Your task to perform on an android device: Open Reddit.com Image 0: 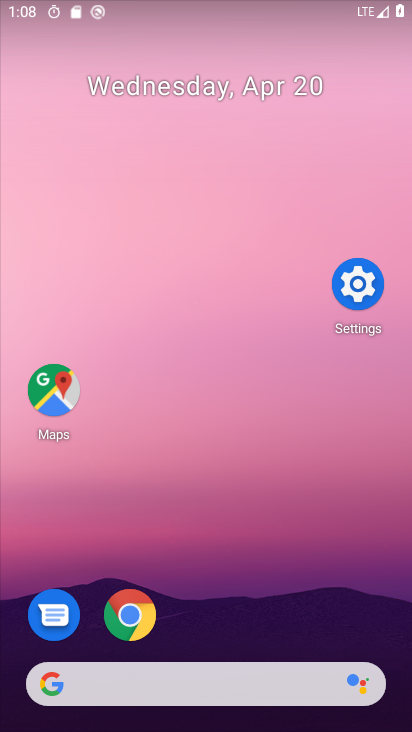
Step 0: drag from (216, 590) to (277, 121)
Your task to perform on an android device: Open Reddit.com Image 1: 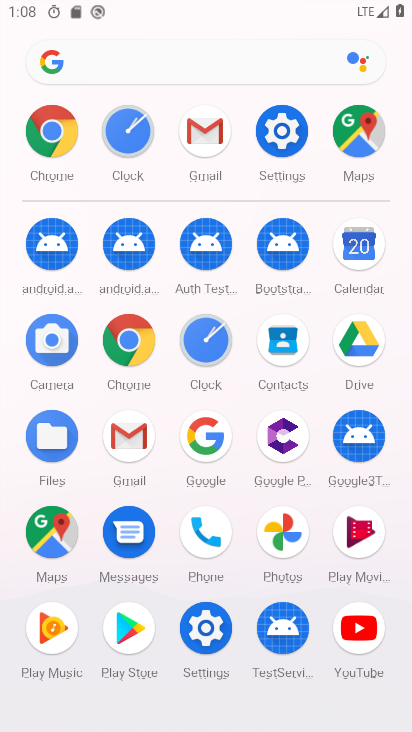
Step 1: click (128, 341)
Your task to perform on an android device: Open Reddit.com Image 2: 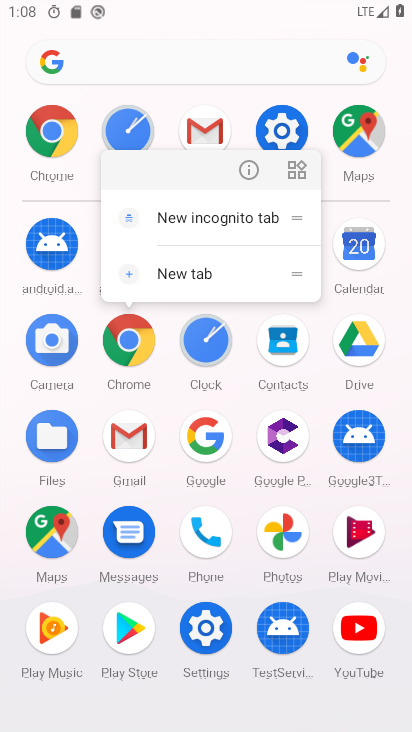
Step 2: click (244, 167)
Your task to perform on an android device: Open Reddit.com Image 3: 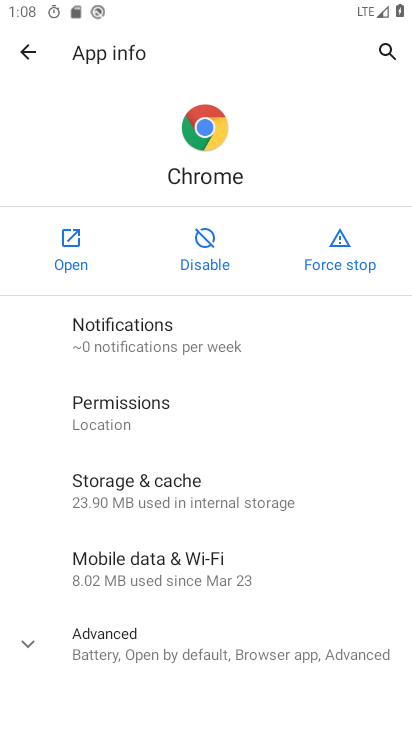
Step 3: click (58, 247)
Your task to perform on an android device: Open Reddit.com Image 4: 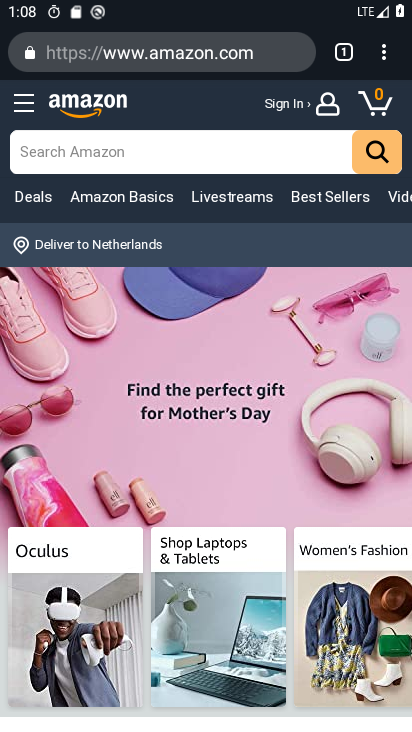
Step 4: click (227, 63)
Your task to perform on an android device: Open Reddit.com Image 5: 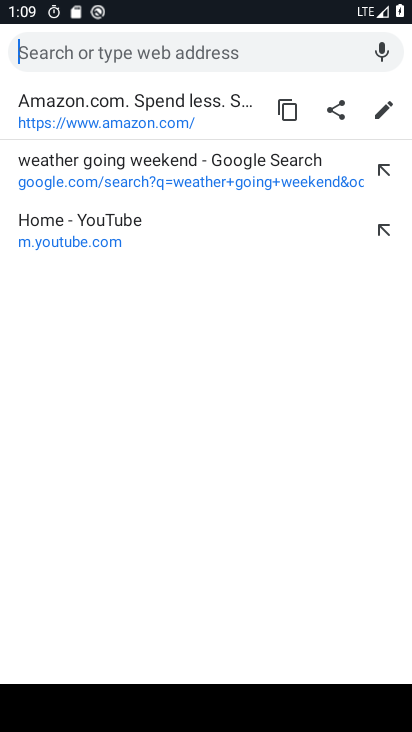
Step 5: type "reddit.com"
Your task to perform on an android device: Open Reddit.com Image 6: 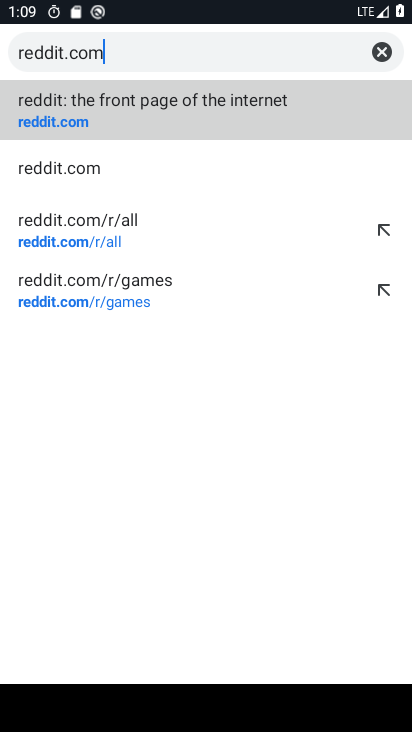
Step 6: click (71, 114)
Your task to perform on an android device: Open Reddit.com Image 7: 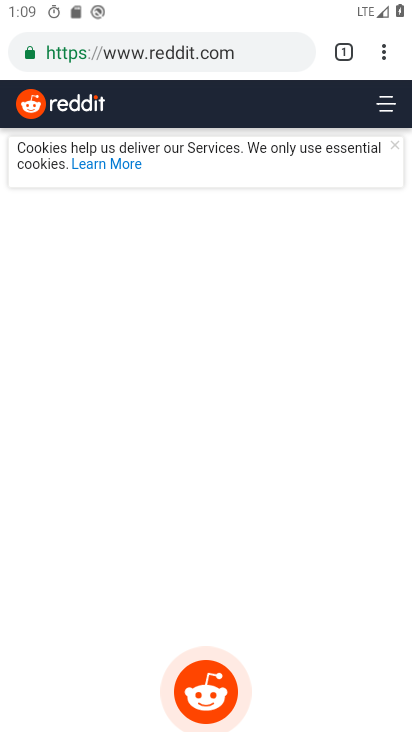
Step 7: task complete